Your task to perform on an android device: turn off priority inbox in the gmail app Image 0: 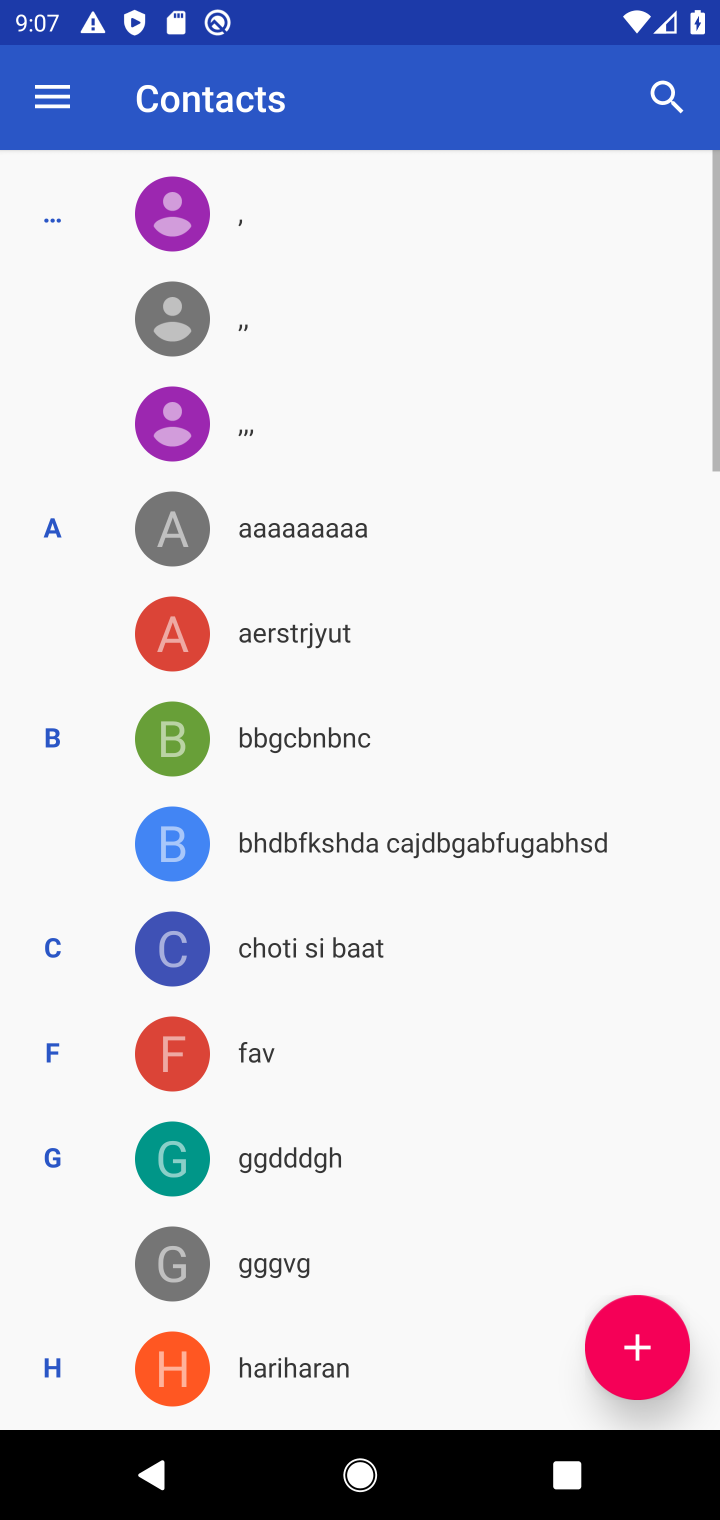
Step 0: press home button
Your task to perform on an android device: turn off priority inbox in the gmail app Image 1: 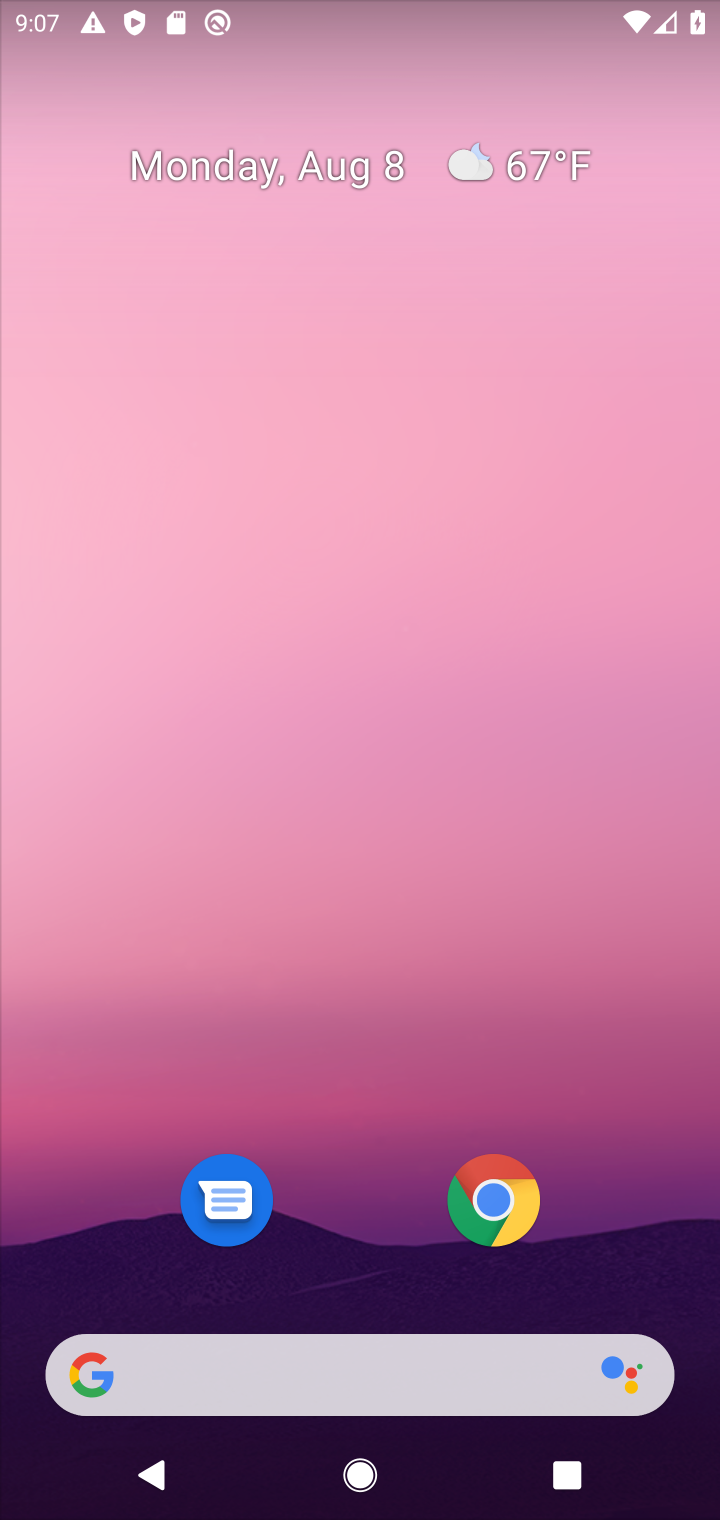
Step 1: drag from (280, 1369) to (478, 99)
Your task to perform on an android device: turn off priority inbox in the gmail app Image 2: 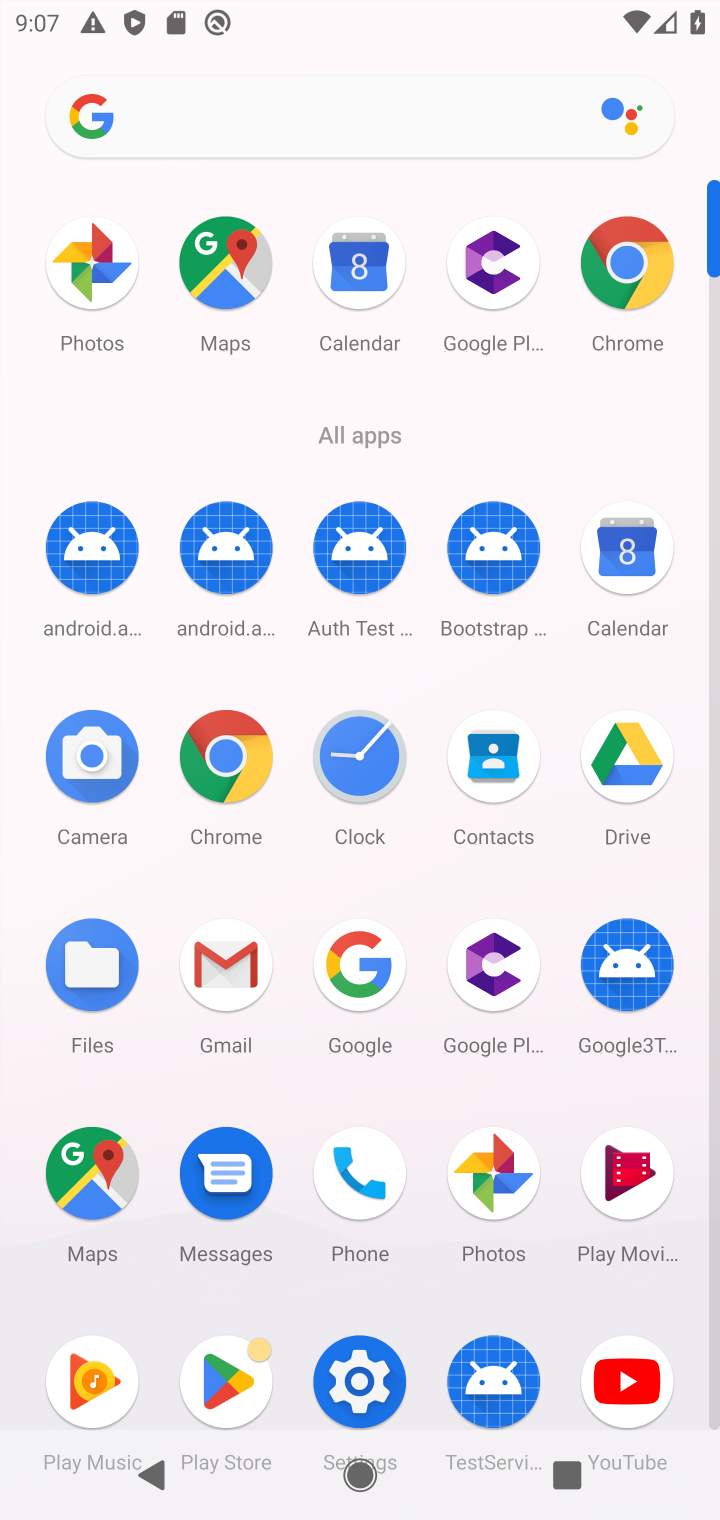
Step 2: click (236, 972)
Your task to perform on an android device: turn off priority inbox in the gmail app Image 3: 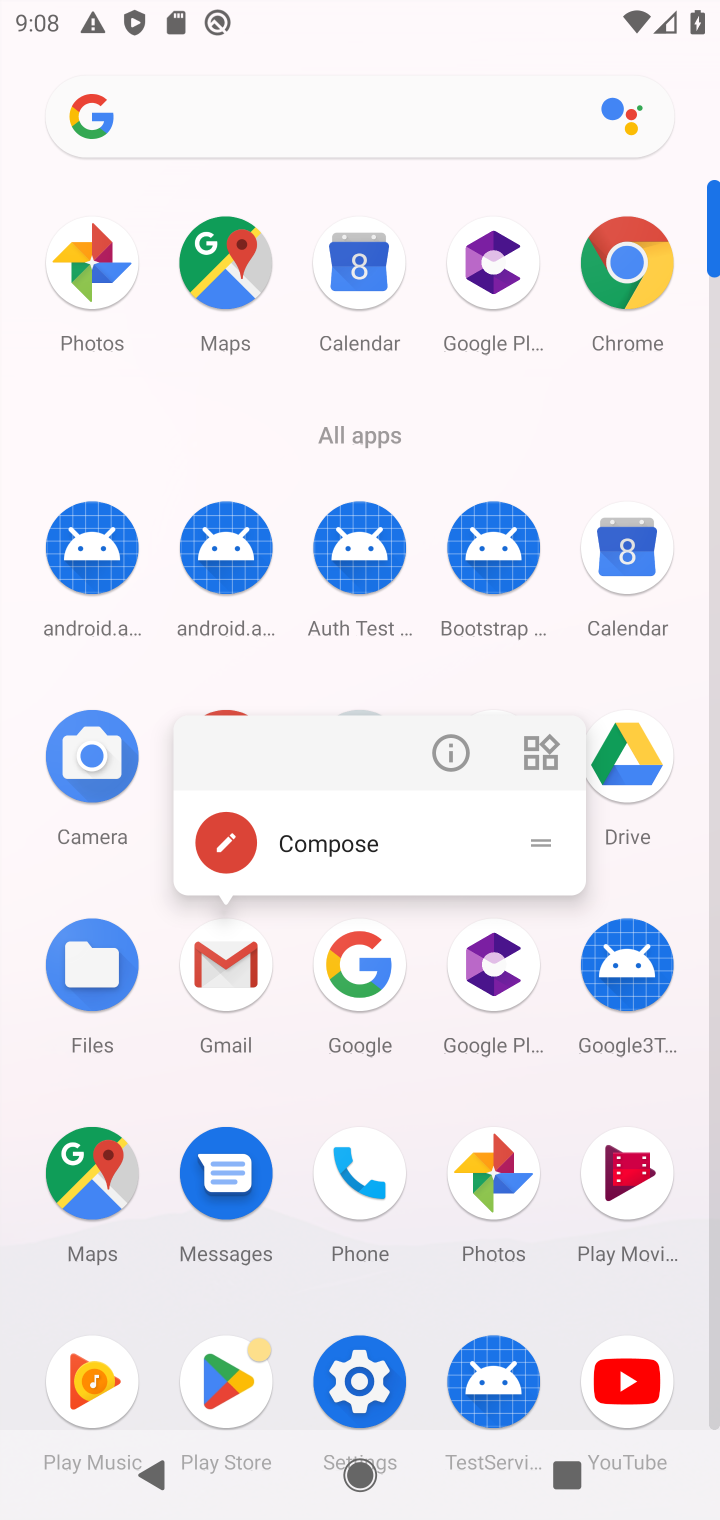
Step 3: click (199, 978)
Your task to perform on an android device: turn off priority inbox in the gmail app Image 4: 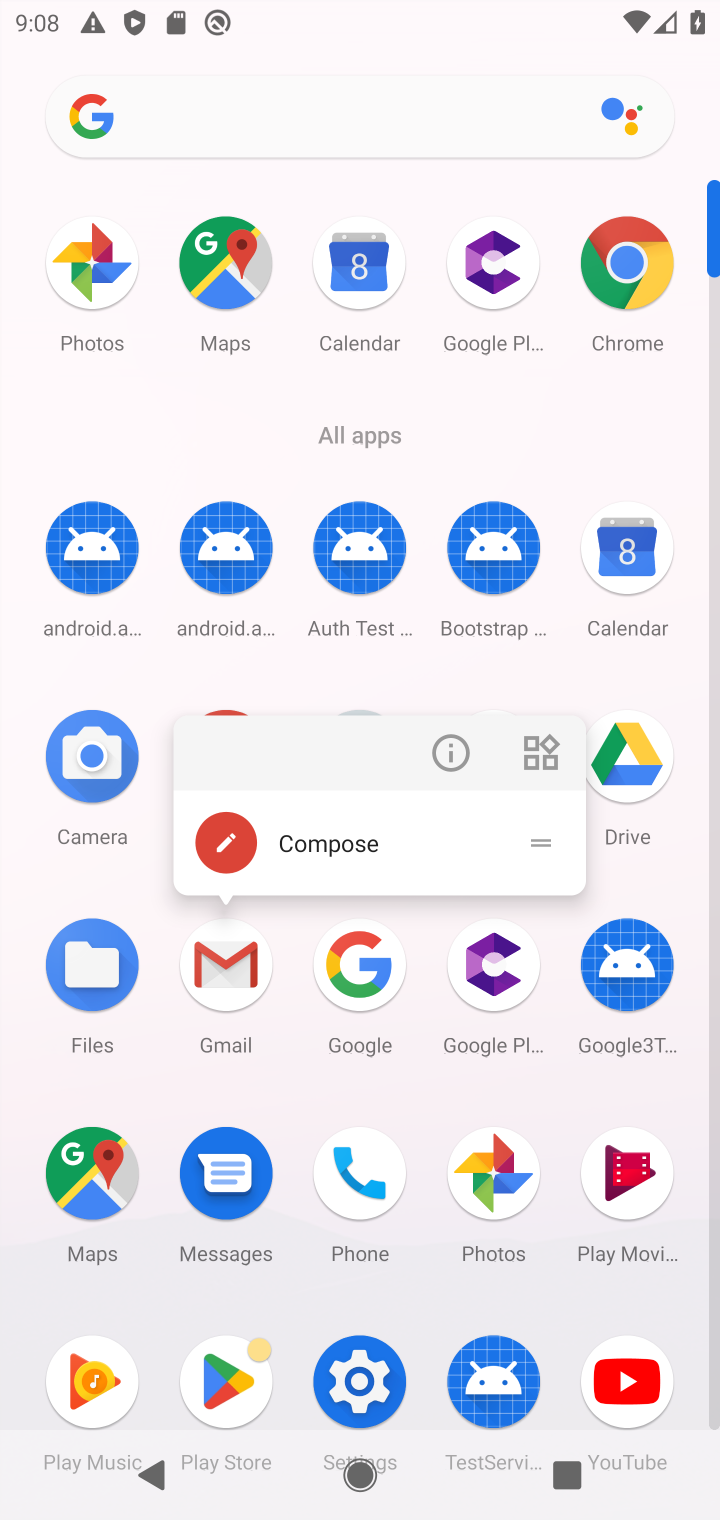
Step 4: click (197, 989)
Your task to perform on an android device: turn off priority inbox in the gmail app Image 5: 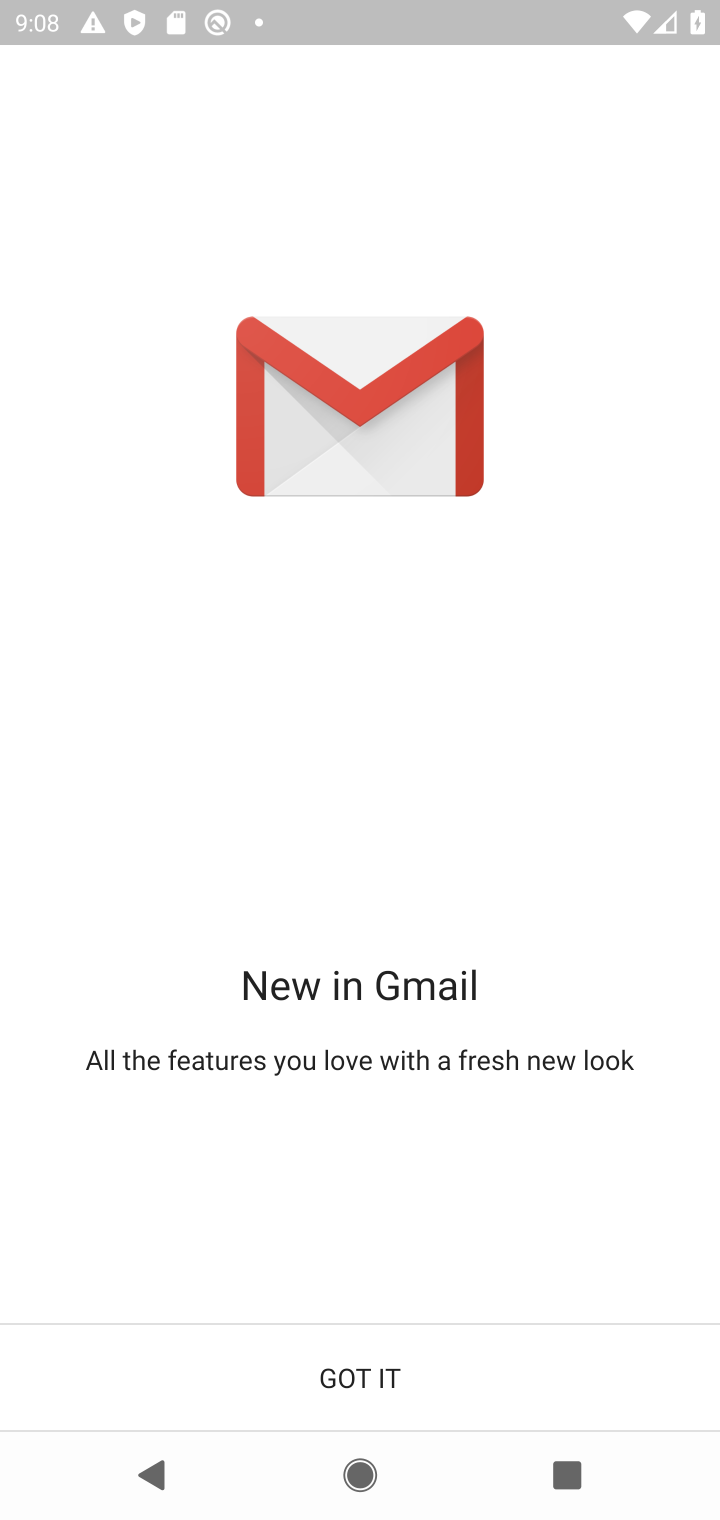
Step 5: click (345, 1367)
Your task to perform on an android device: turn off priority inbox in the gmail app Image 6: 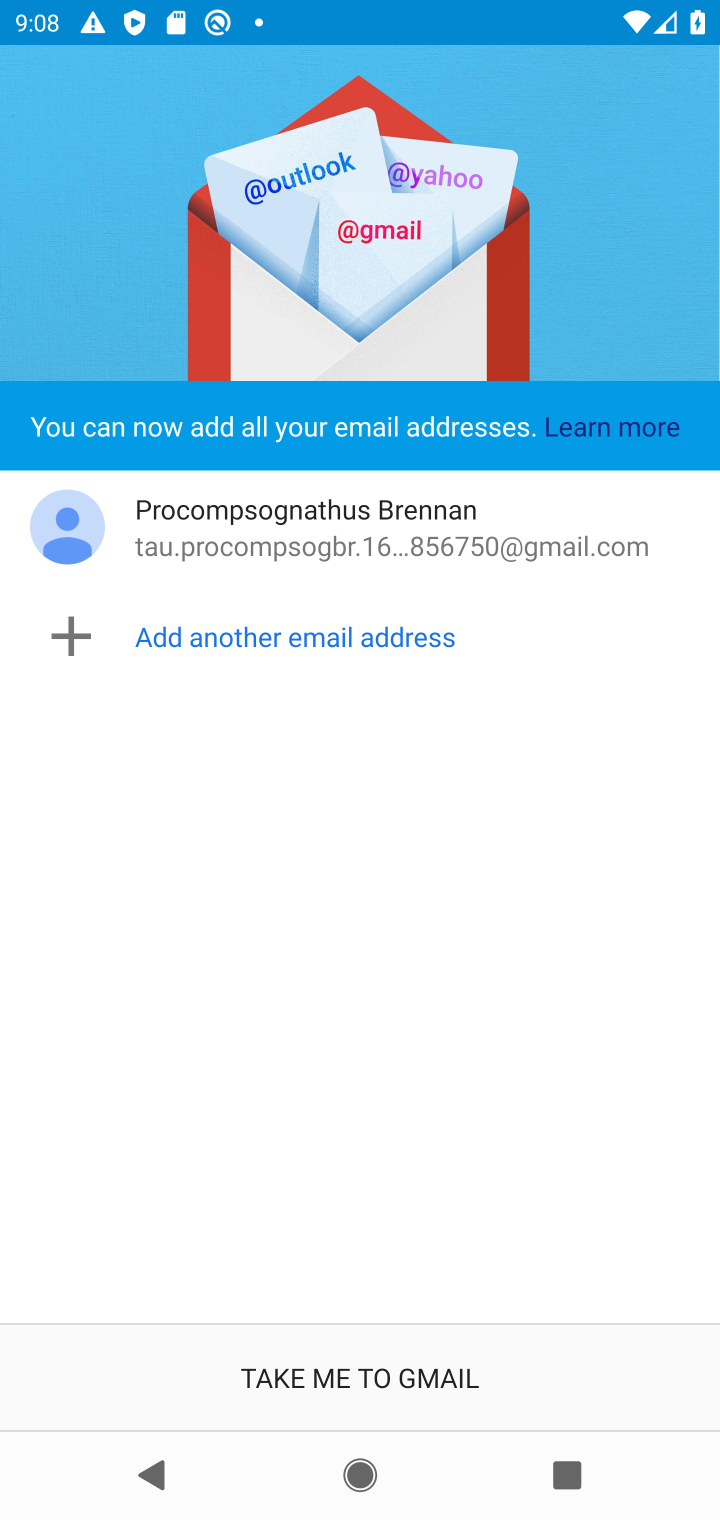
Step 6: click (375, 1360)
Your task to perform on an android device: turn off priority inbox in the gmail app Image 7: 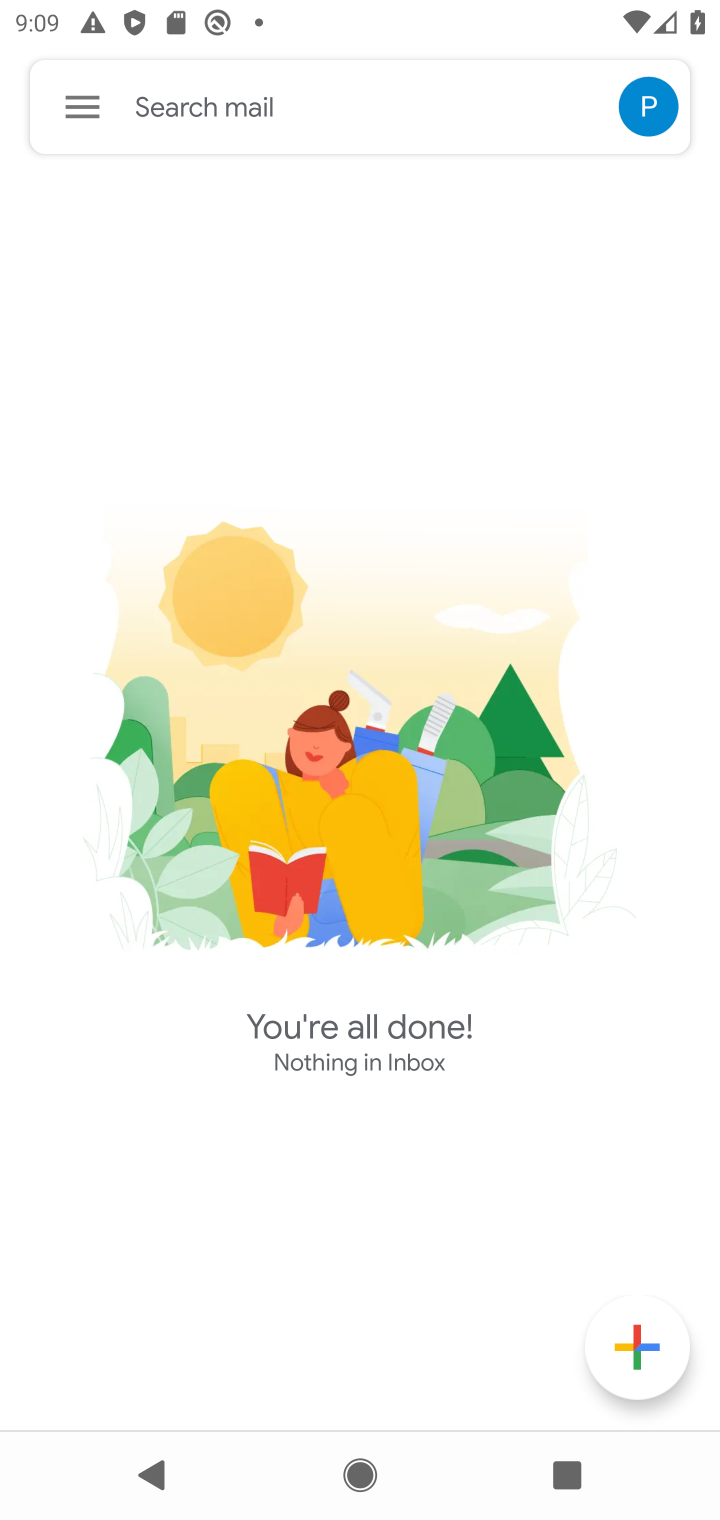
Step 7: click (77, 103)
Your task to perform on an android device: turn off priority inbox in the gmail app Image 8: 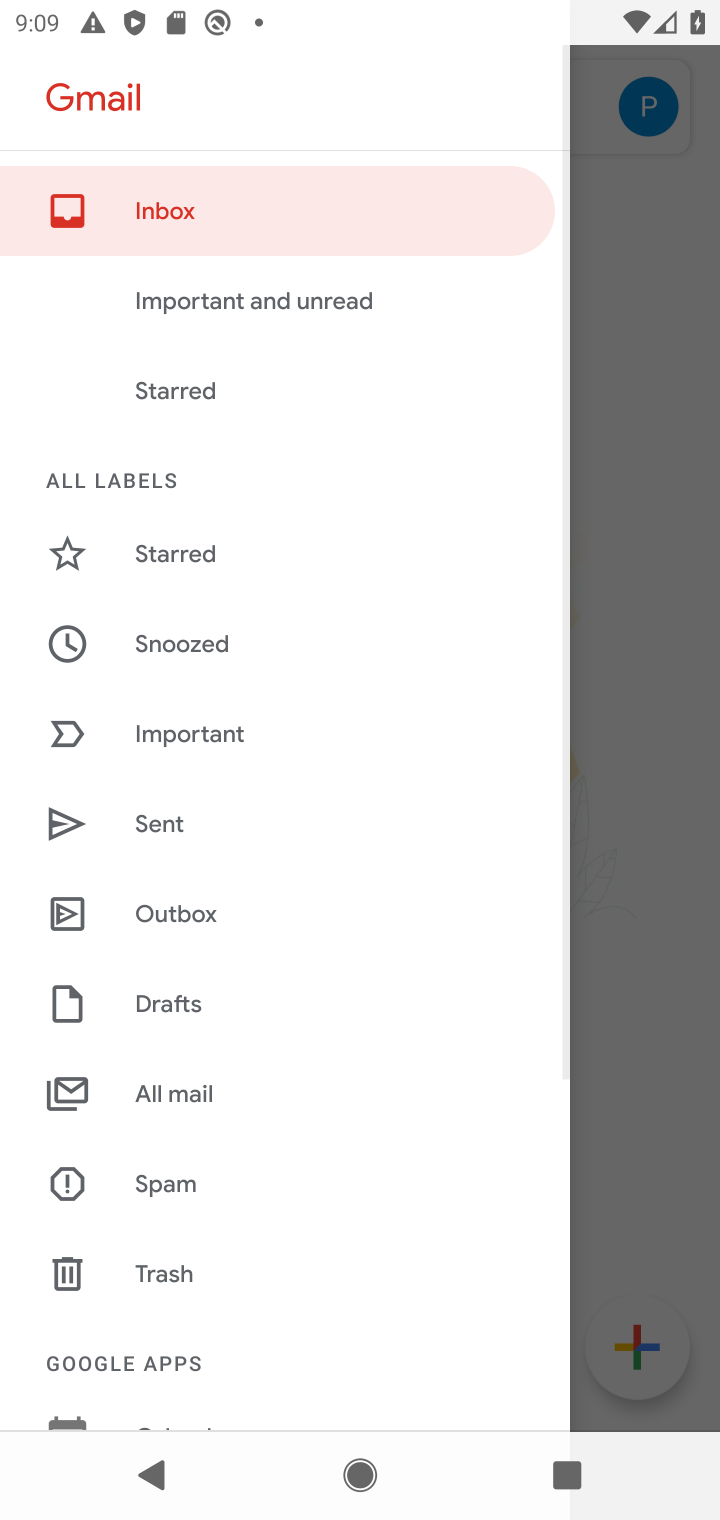
Step 8: drag from (206, 1214) to (492, 51)
Your task to perform on an android device: turn off priority inbox in the gmail app Image 9: 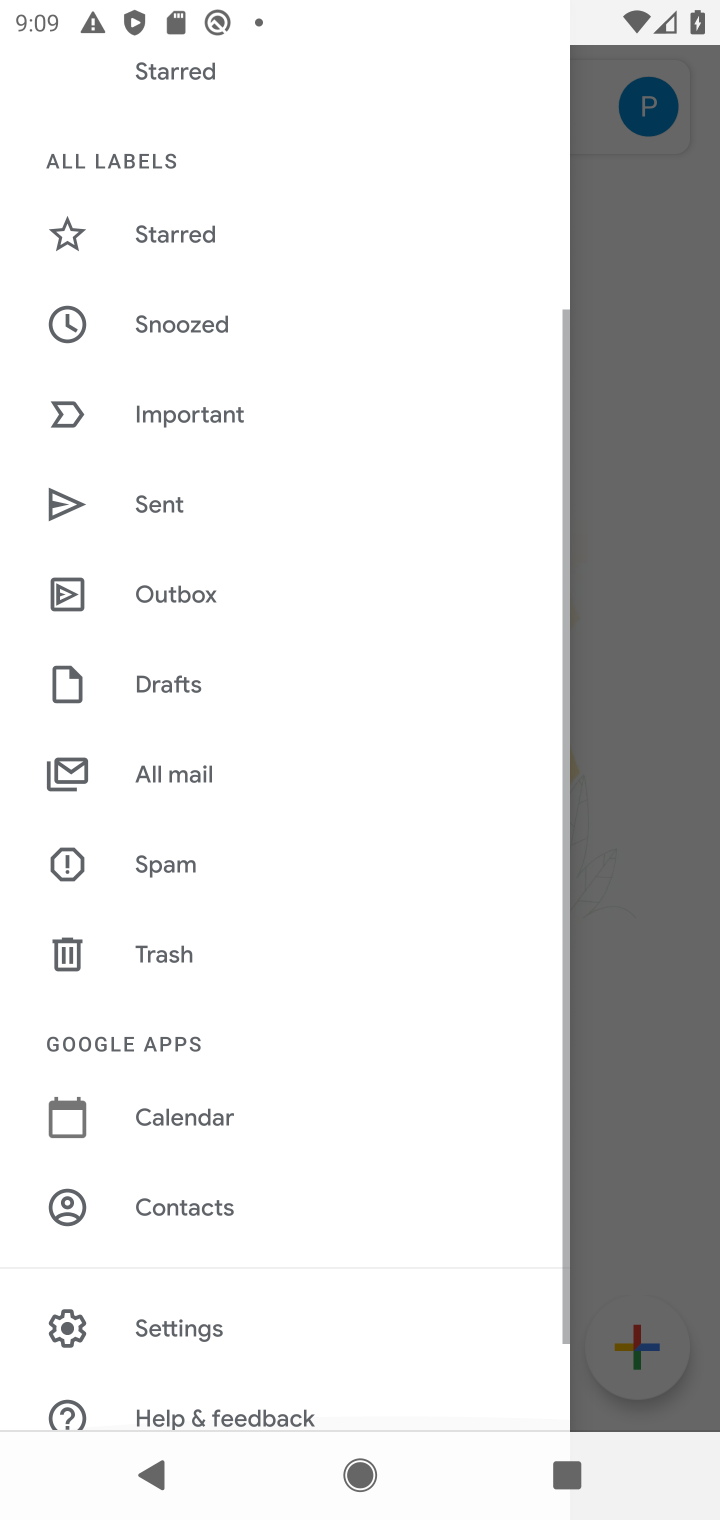
Step 9: click (159, 1301)
Your task to perform on an android device: turn off priority inbox in the gmail app Image 10: 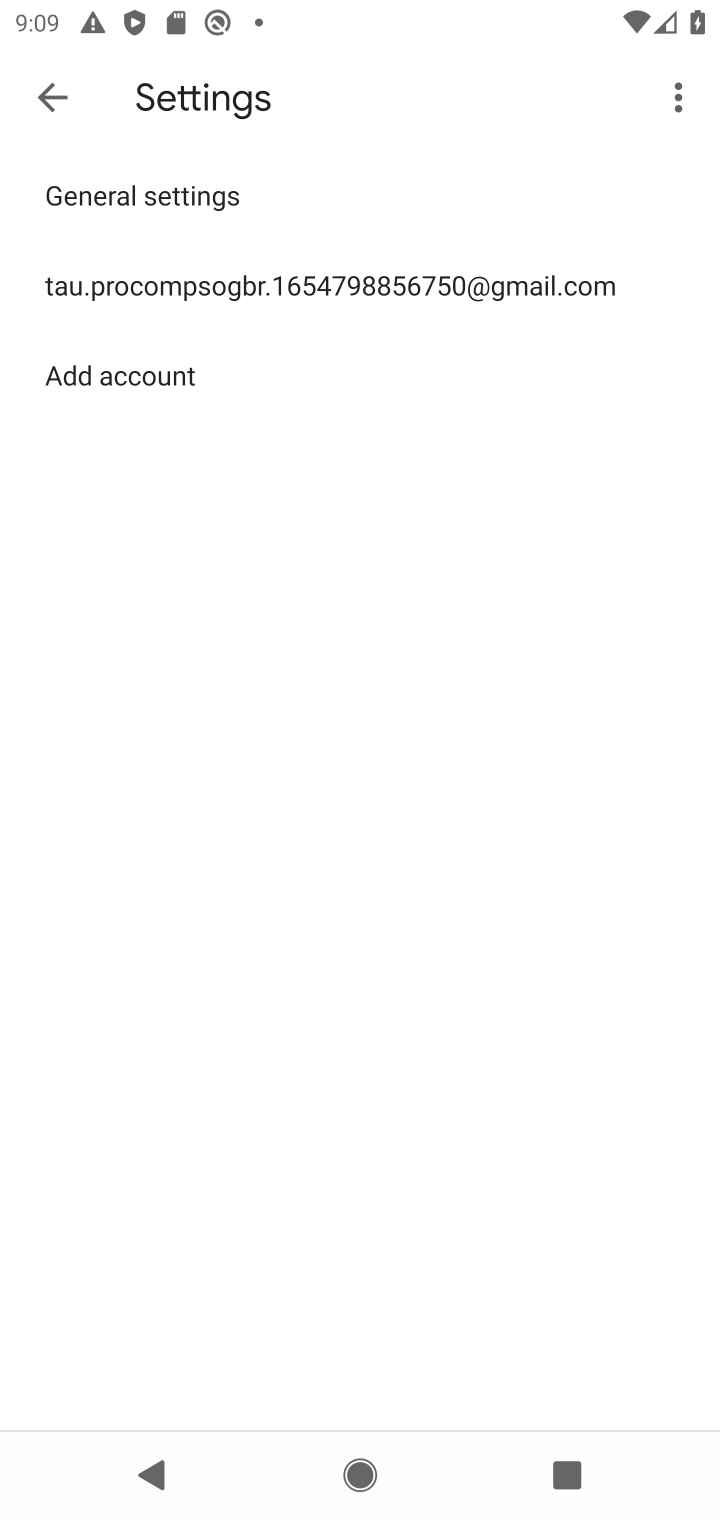
Step 10: click (489, 280)
Your task to perform on an android device: turn off priority inbox in the gmail app Image 11: 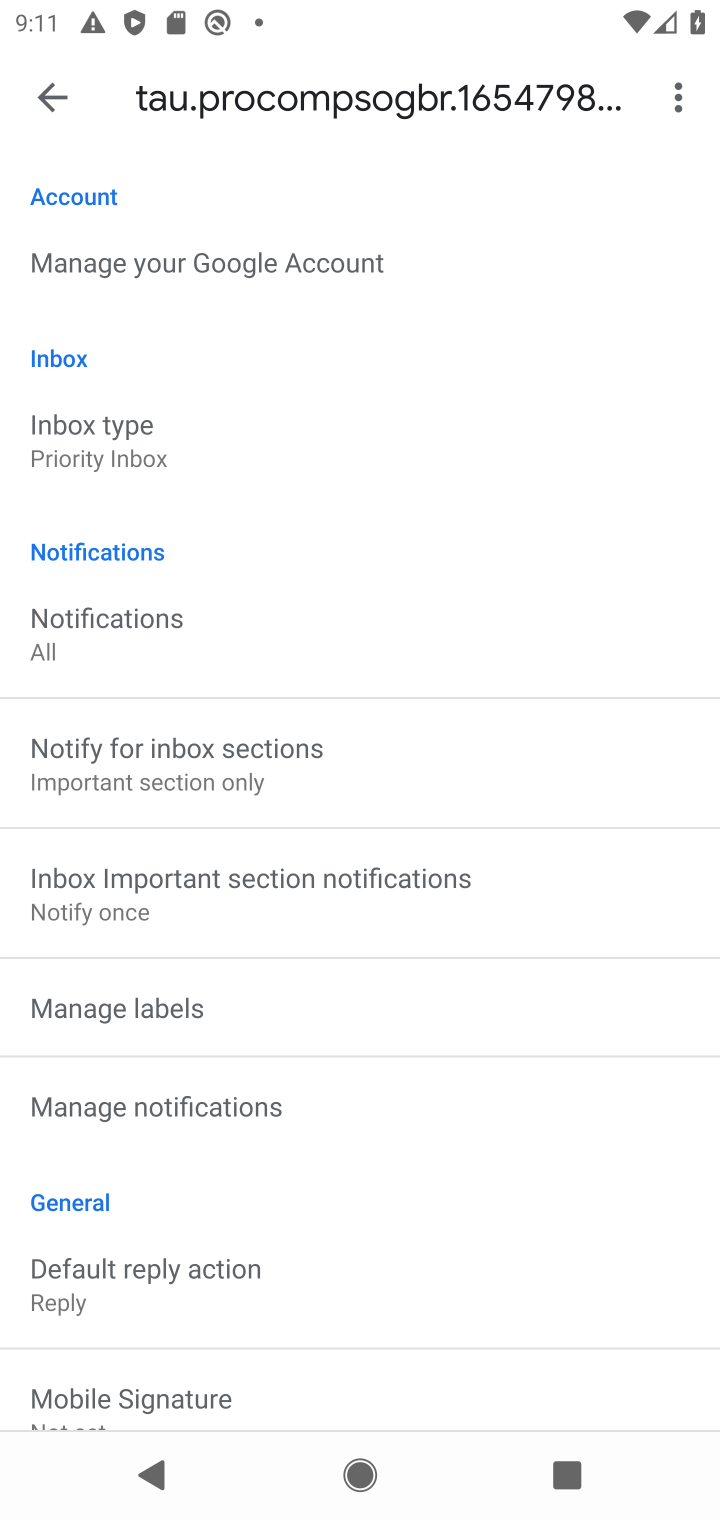
Step 11: click (127, 431)
Your task to perform on an android device: turn off priority inbox in the gmail app Image 12: 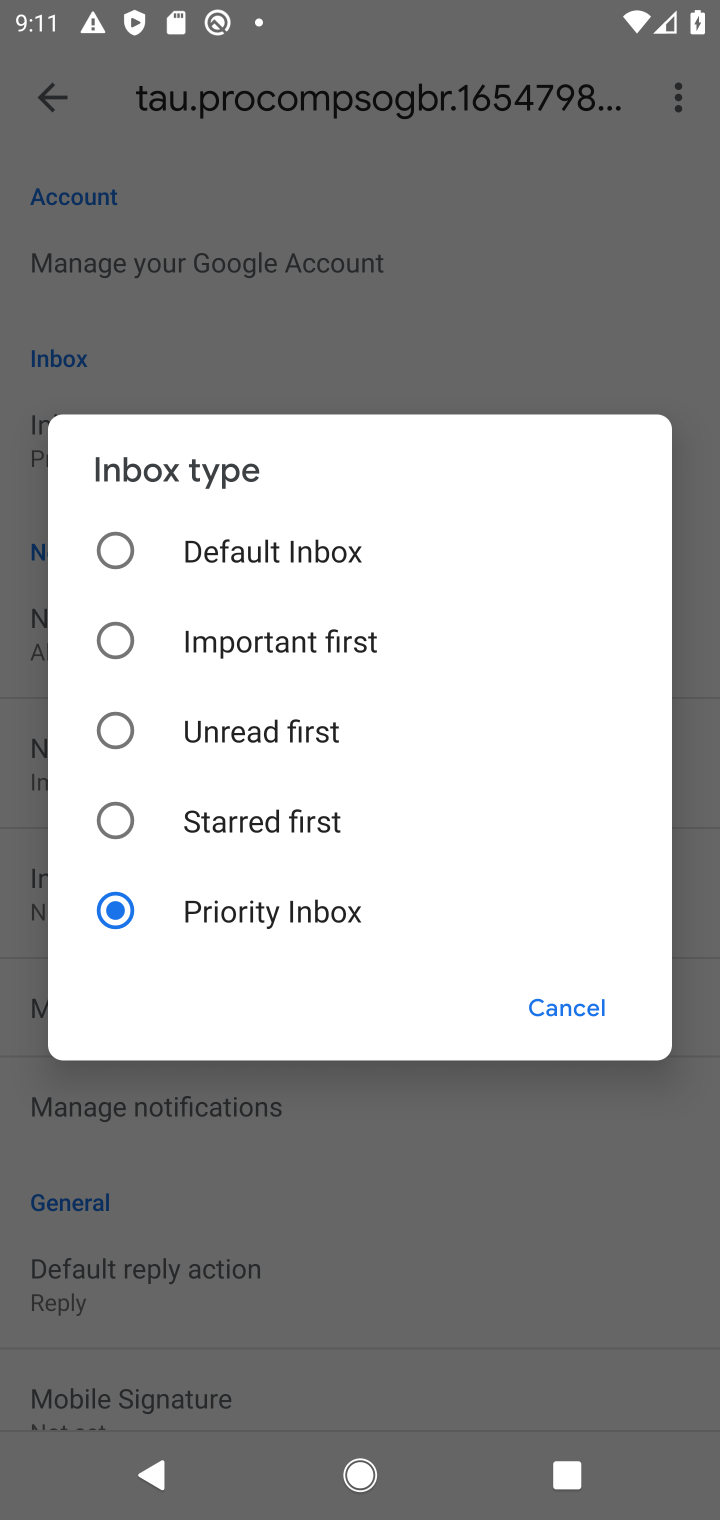
Step 12: click (119, 546)
Your task to perform on an android device: turn off priority inbox in the gmail app Image 13: 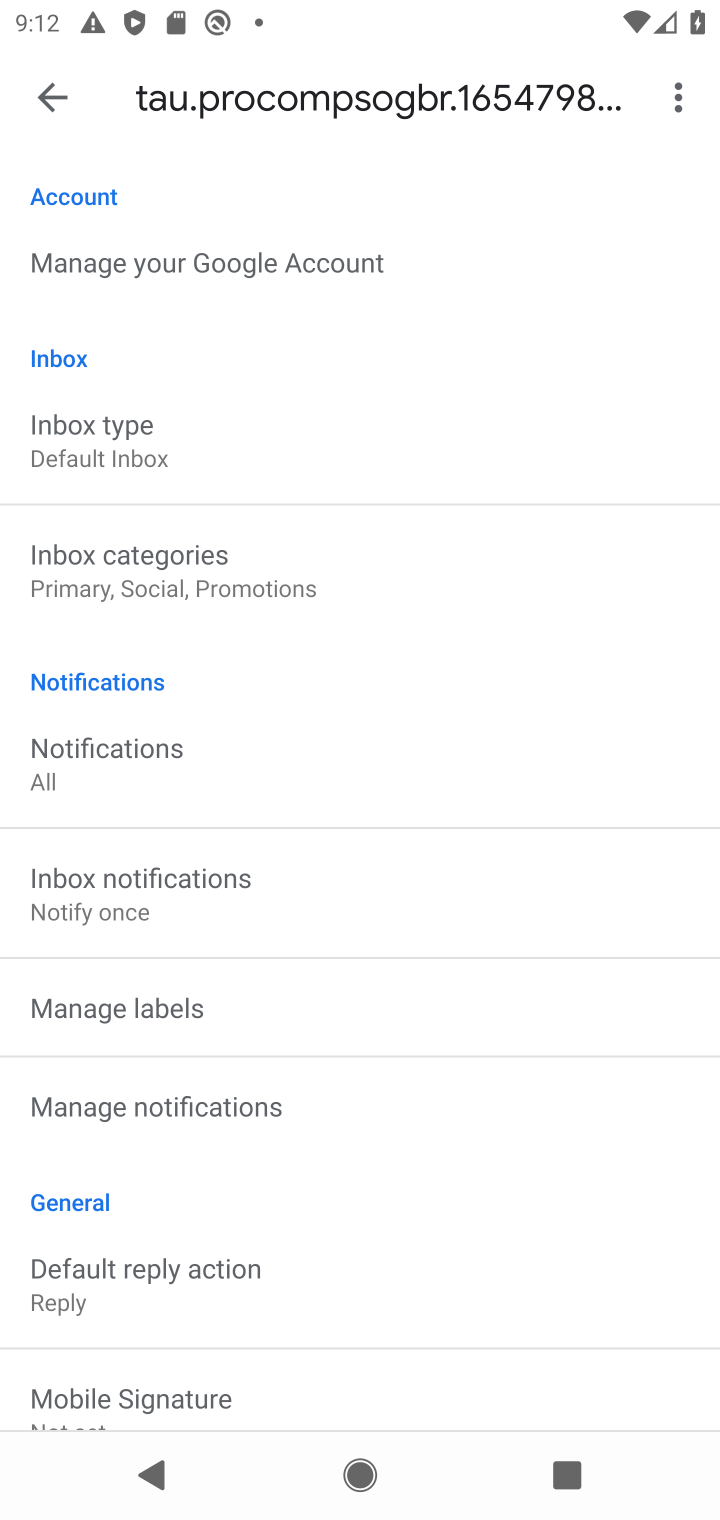
Step 13: task complete